Your task to perform on an android device: turn notification dots off Image 0: 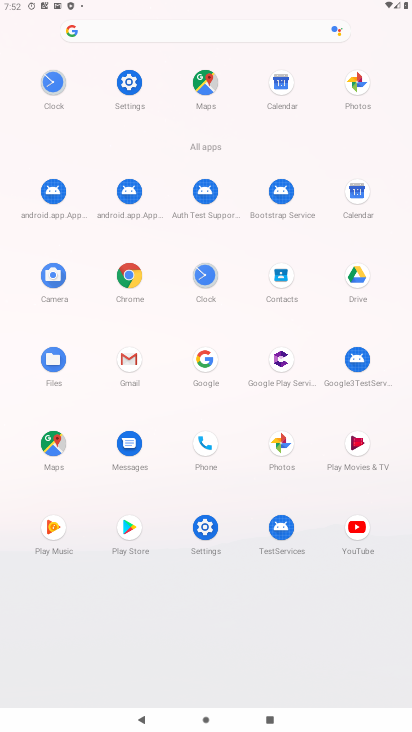
Step 0: press home button
Your task to perform on an android device: turn notification dots off Image 1: 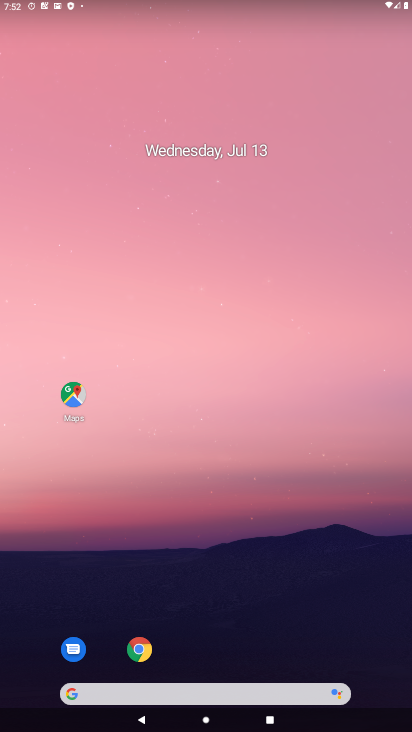
Step 1: drag from (204, 659) to (277, 257)
Your task to perform on an android device: turn notification dots off Image 2: 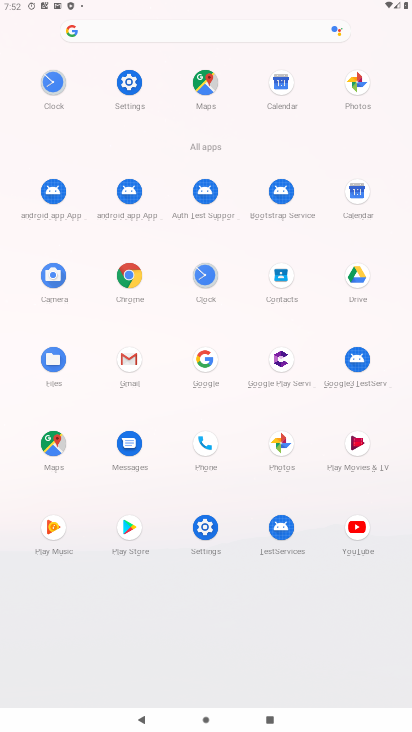
Step 2: click (207, 528)
Your task to perform on an android device: turn notification dots off Image 3: 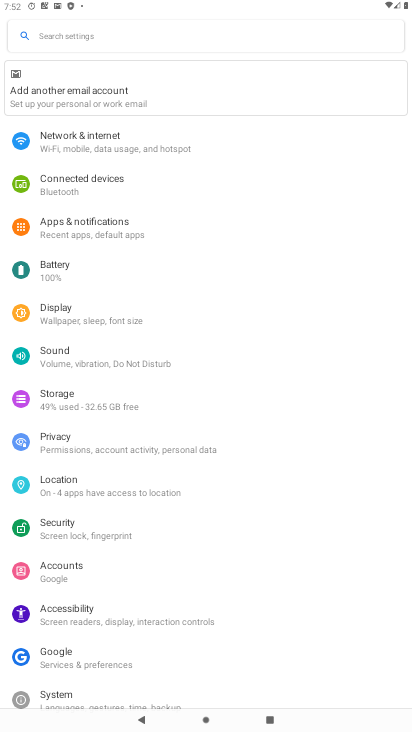
Step 3: click (117, 229)
Your task to perform on an android device: turn notification dots off Image 4: 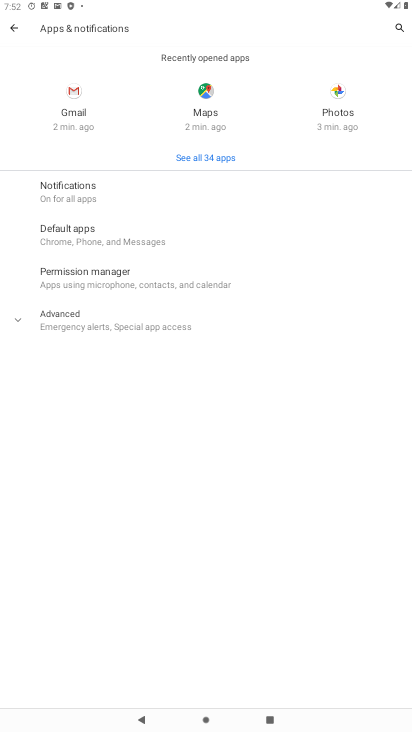
Step 4: click (84, 193)
Your task to perform on an android device: turn notification dots off Image 5: 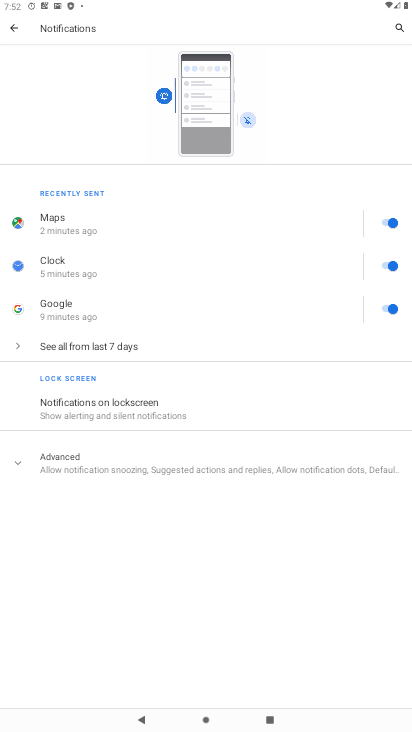
Step 5: click (116, 465)
Your task to perform on an android device: turn notification dots off Image 6: 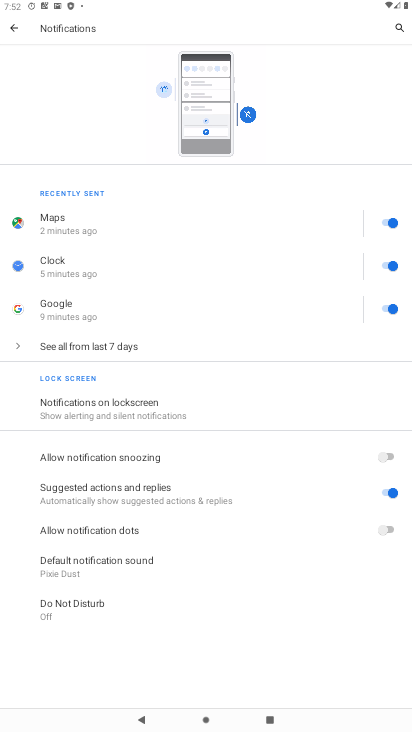
Step 6: task complete